Your task to perform on an android device: see sites visited before in the chrome app Image 0: 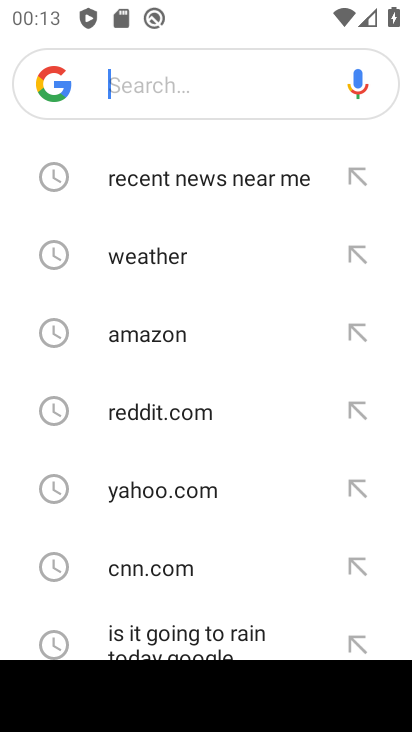
Step 0: press home button
Your task to perform on an android device: see sites visited before in the chrome app Image 1: 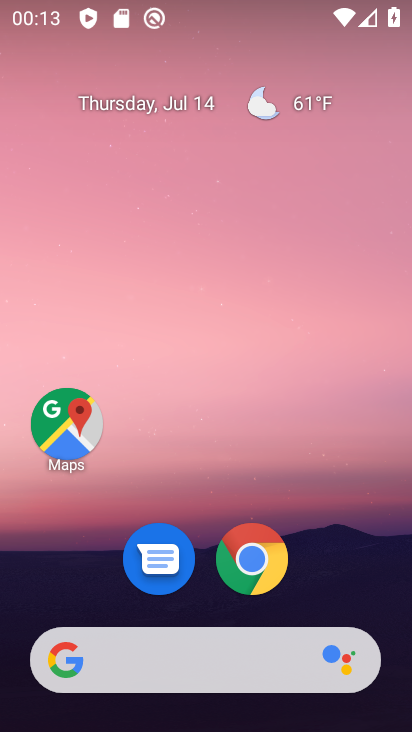
Step 1: click (262, 555)
Your task to perform on an android device: see sites visited before in the chrome app Image 2: 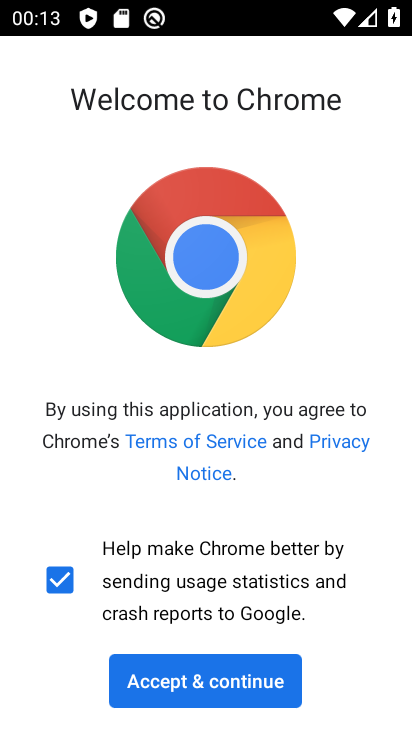
Step 2: click (261, 677)
Your task to perform on an android device: see sites visited before in the chrome app Image 3: 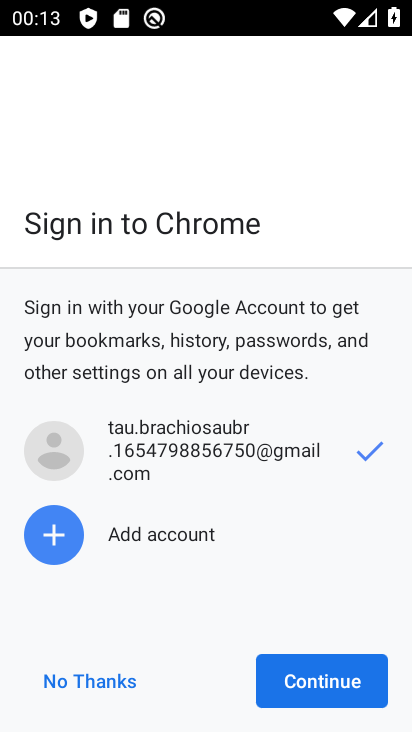
Step 3: click (282, 679)
Your task to perform on an android device: see sites visited before in the chrome app Image 4: 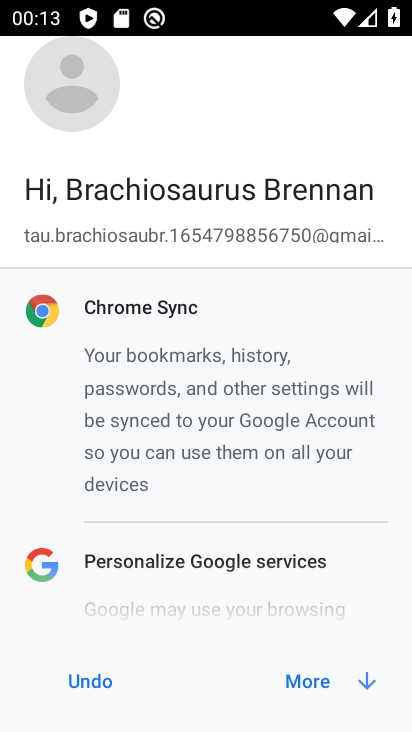
Step 4: click (306, 680)
Your task to perform on an android device: see sites visited before in the chrome app Image 5: 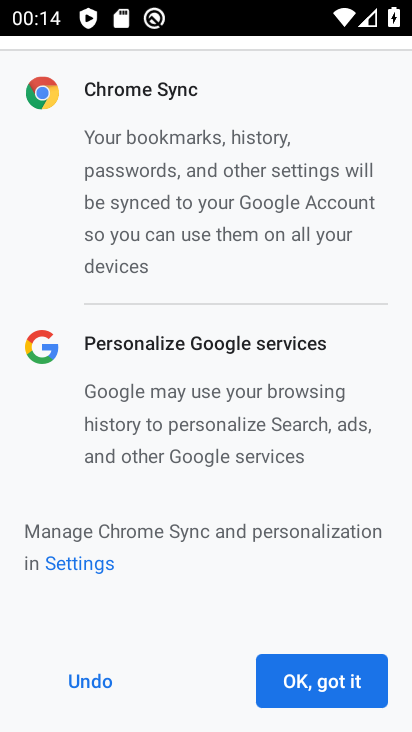
Step 5: click (306, 680)
Your task to perform on an android device: see sites visited before in the chrome app Image 6: 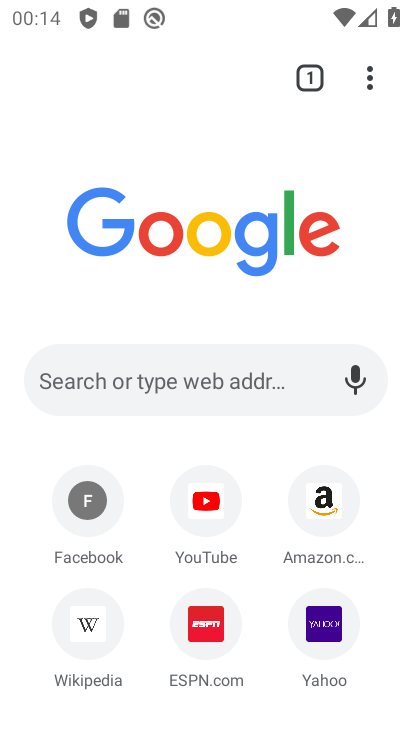
Step 6: click (304, 667)
Your task to perform on an android device: see sites visited before in the chrome app Image 7: 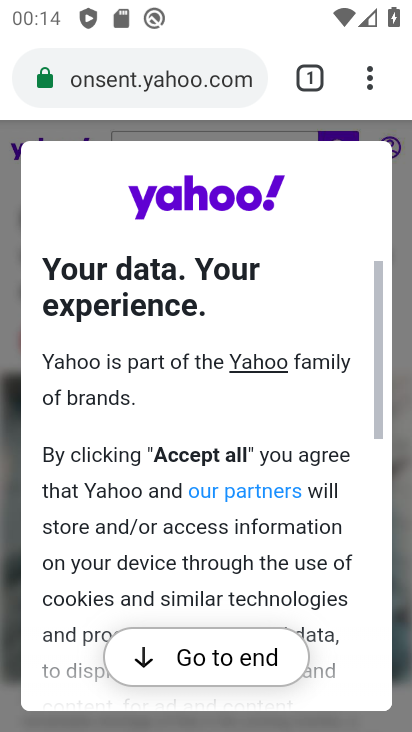
Step 7: click (371, 85)
Your task to perform on an android device: see sites visited before in the chrome app Image 8: 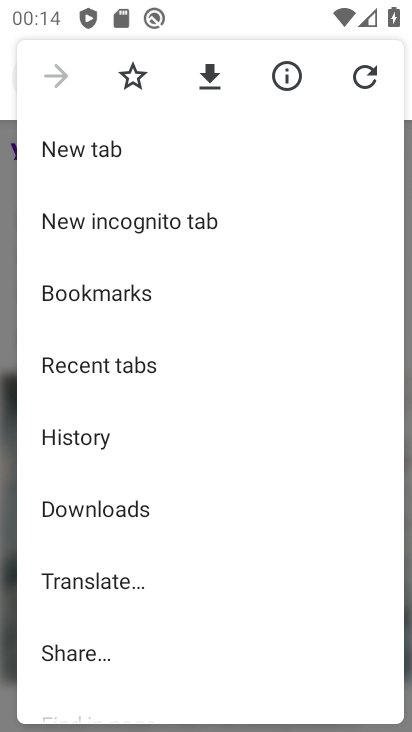
Step 8: click (129, 360)
Your task to perform on an android device: see sites visited before in the chrome app Image 9: 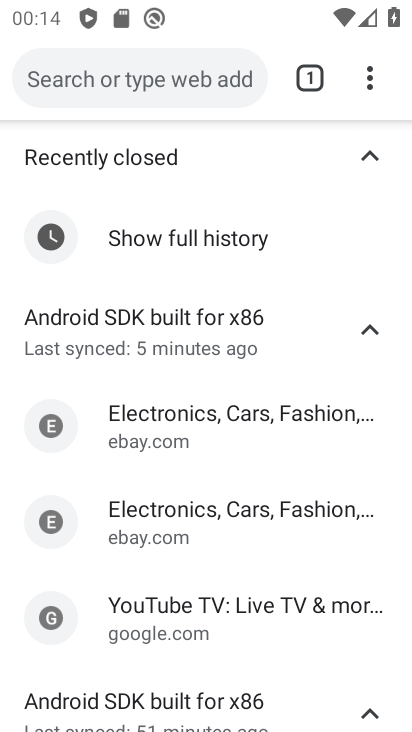
Step 9: task complete